Your task to perform on an android device: turn notification dots on Image 0: 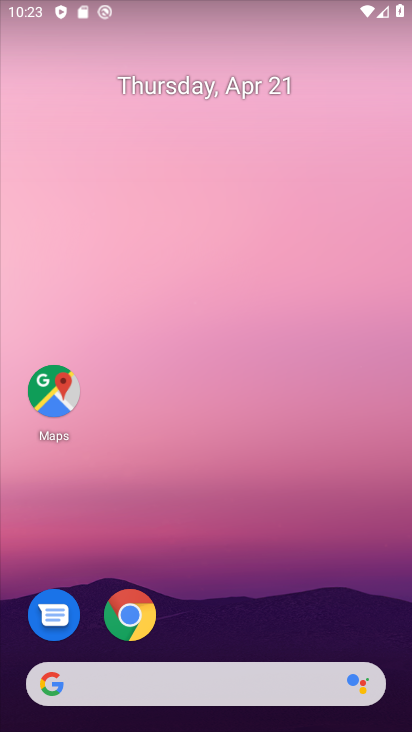
Step 0: click (125, 618)
Your task to perform on an android device: turn notification dots on Image 1: 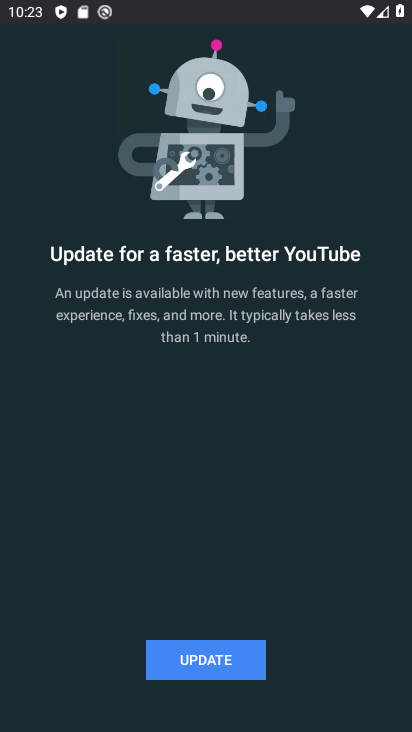
Step 1: press home button
Your task to perform on an android device: turn notification dots on Image 2: 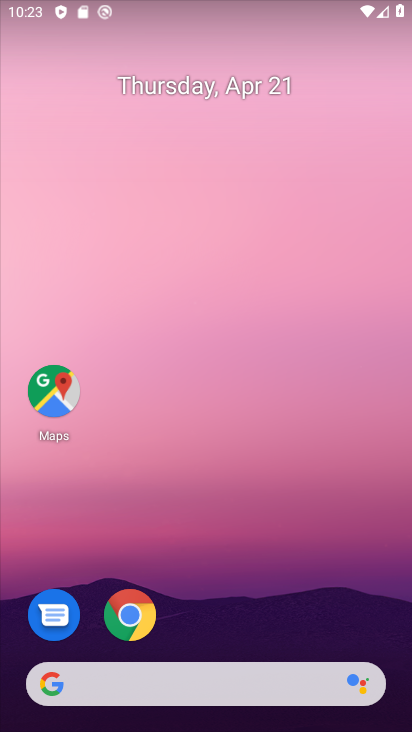
Step 2: drag from (257, 621) to (216, 238)
Your task to perform on an android device: turn notification dots on Image 3: 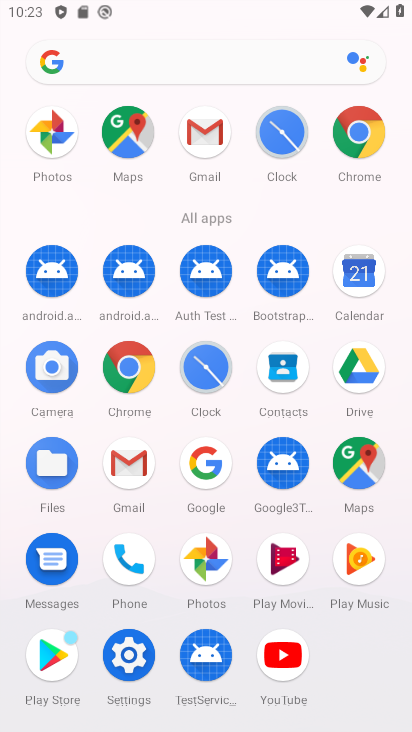
Step 3: click (107, 645)
Your task to perform on an android device: turn notification dots on Image 4: 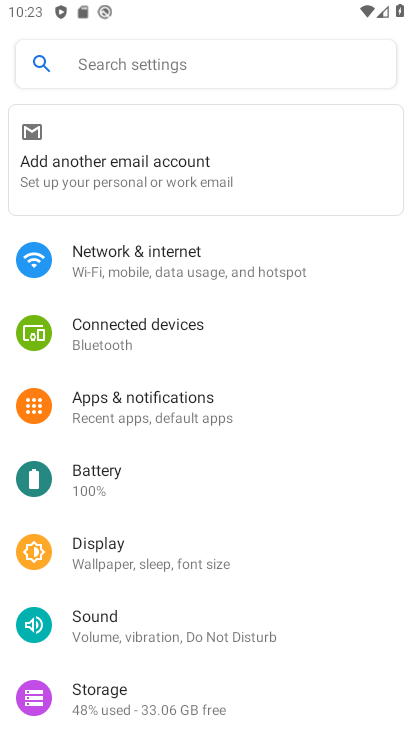
Step 4: click (246, 412)
Your task to perform on an android device: turn notification dots on Image 5: 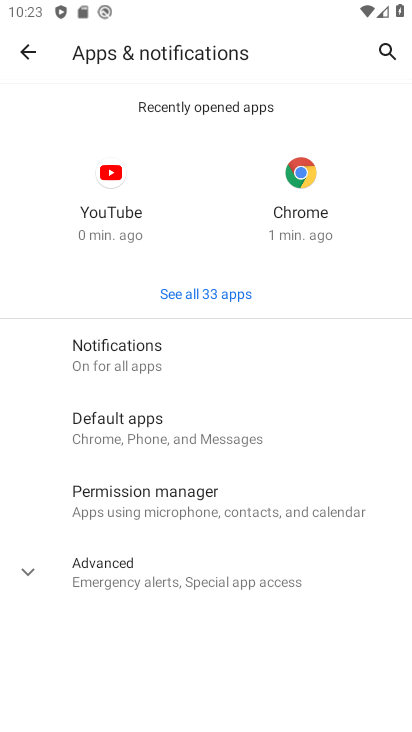
Step 5: click (202, 384)
Your task to perform on an android device: turn notification dots on Image 6: 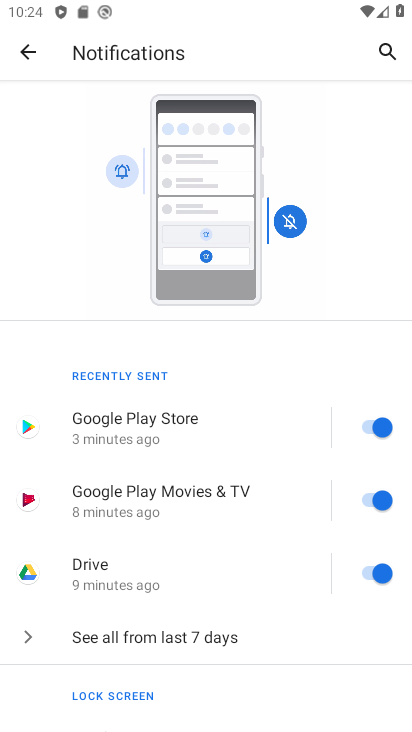
Step 6: drag from (262, 649) to (115, 222)
Your task to perform on an android device: turn notification dots on Image 7: 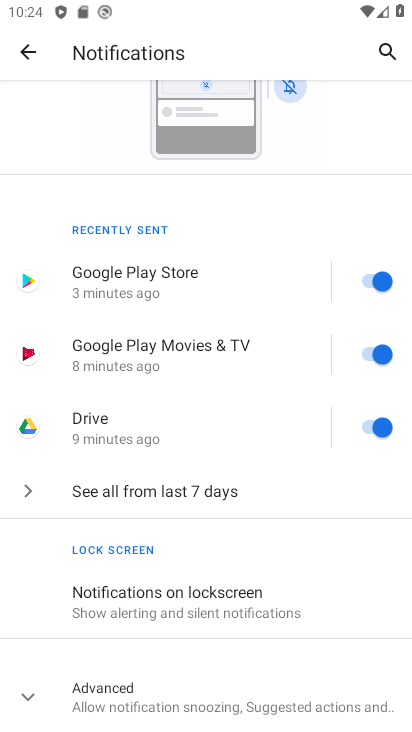
Step 7: click (298, 709)
Your task to perform on an android device: turn notification dots on Image 8: 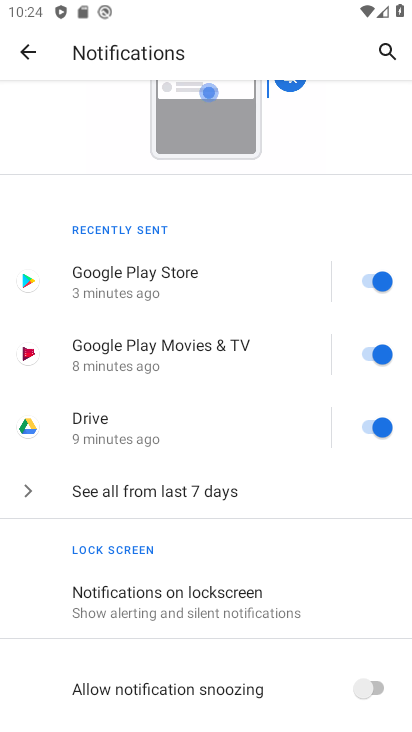
Step 8: task complete